Your task to perform on an android device: Open calendar and show me the second week of next month Image 0: 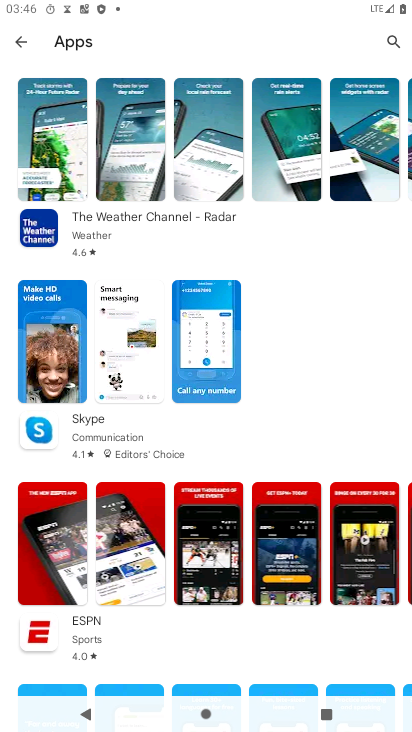
Step 0: press home button
Your task to perform on an android device: Open calendar and show me the second week of next month Image 1: 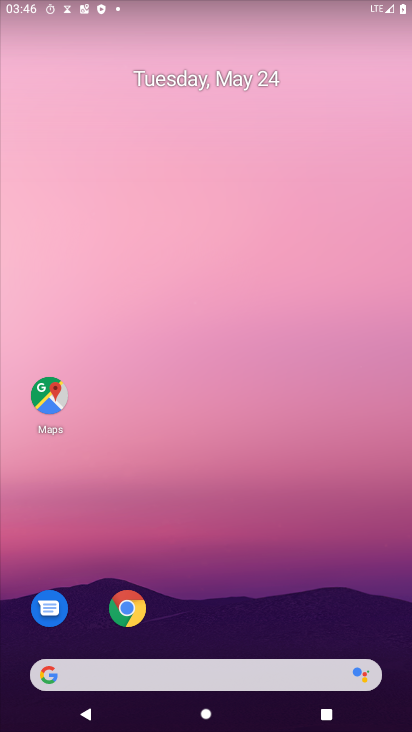
Step 1: drag from (240, 616) to (240, 110)
Your task to perform on an android device: Open calendar and show me the second week of next month Image 2: 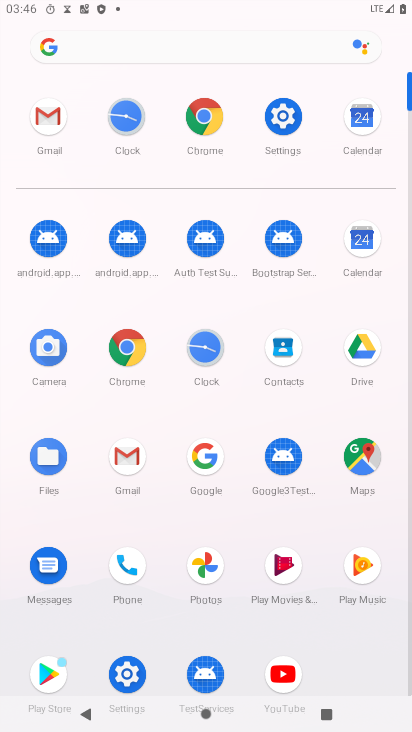
Step 2: click (371, 233)
Your task to perform on an android device: Open calendar and show me the second week of next month Image 3: 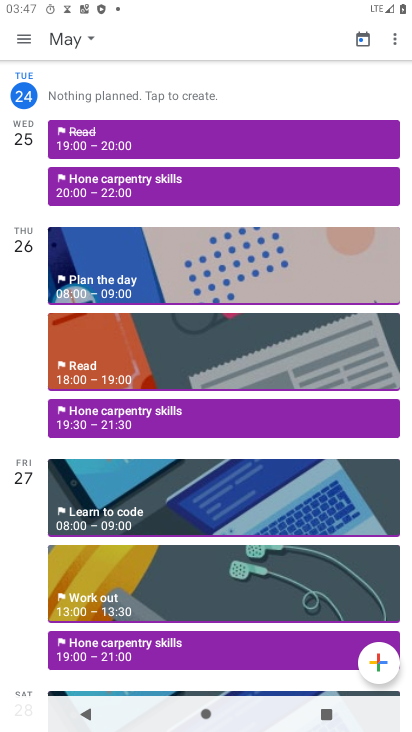
Step 3: click (28, 39)
Your task to perform on an android device: Open calendar and show me the second week of next month Image 4: 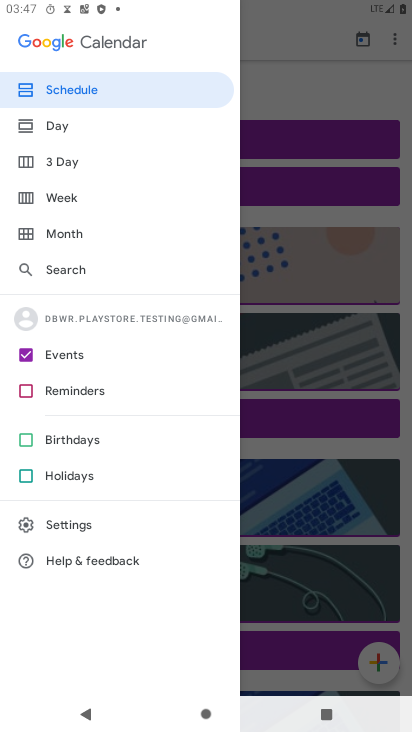
Step 4: click (84, 199)
Your task to perform on an android device: Open calendar and show me the second week of next month Image 5: 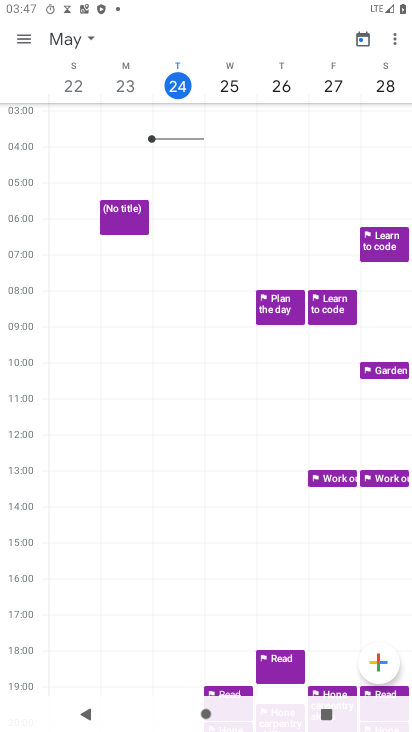
Step 5: click (88, 33)
Your task to perform on an android device: Open calendar and show me the second week of next month Image 6: 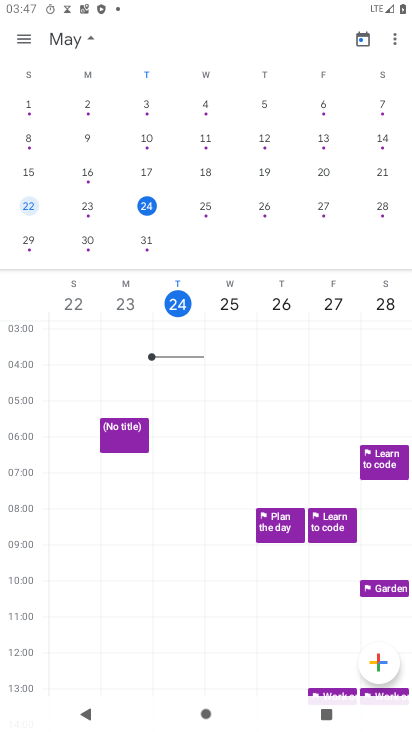
Step 6: drag from (399, 175) to (7, 121)
Your task to perform on an android device: Open calendar and show me the second week of next month Image 7: 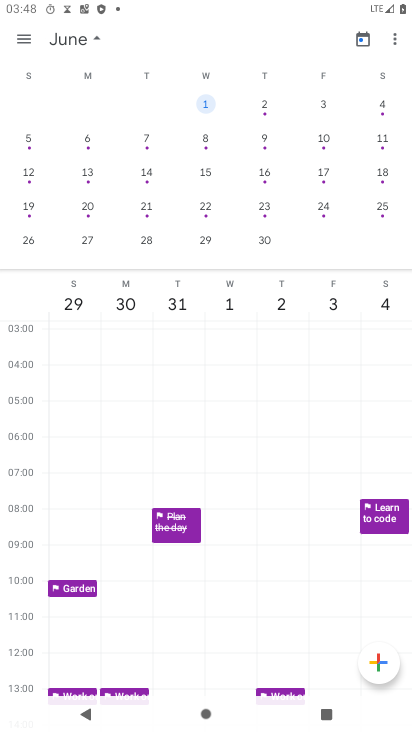
Step 7: click (268, 132)
Your task to perform on an android device: Open calendar and show me the second week of next month Image 8: 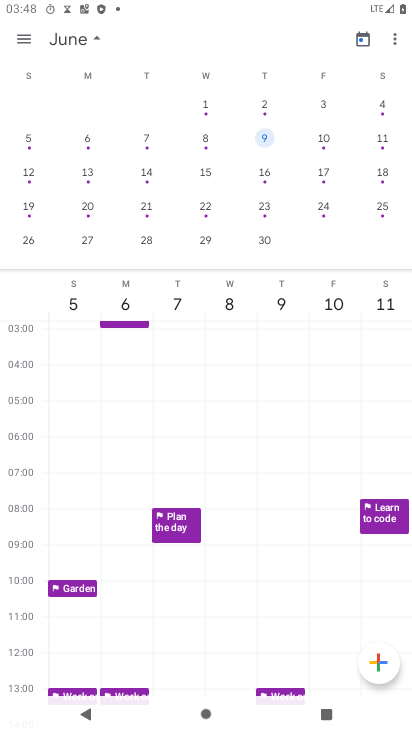
Step 8: task complete